Your task to perform on an android device: empty trash in the gmail app Image 0: 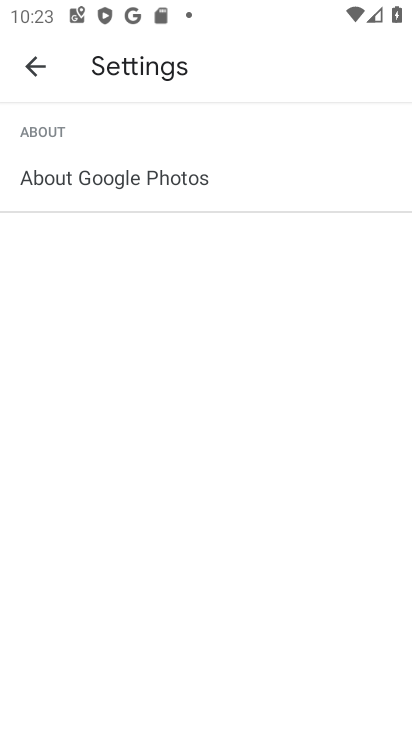
Step 0: press home button
Your task to perform on an android device: empty trash in the gmail app Image 1: 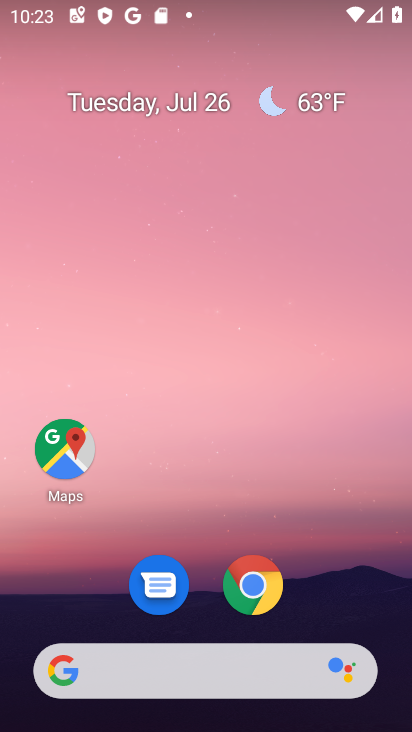
Step 1: drag from (386, 87) to (385, 37)
Your task to perform on an android device: empty trash in the gmail app Image 2: 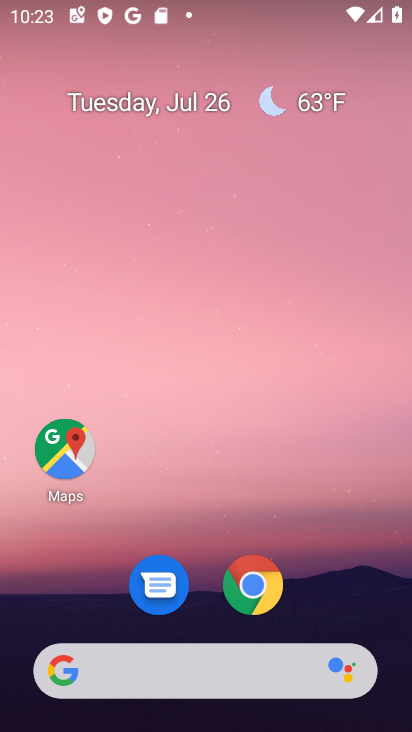
Step 2: drag from (192, 472) to (224, 0)
Your task to perform on an android device: empty trash in the gmail app Image 3: 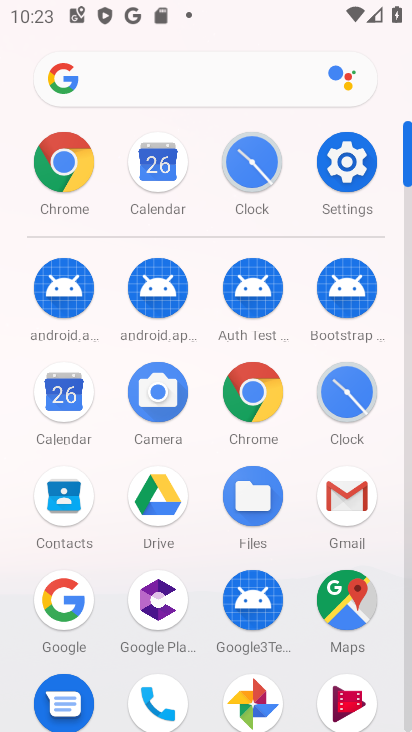
Step 3: click (352, 486)
Your task to perform on an android device: empty trash in the gmail app Image 4: 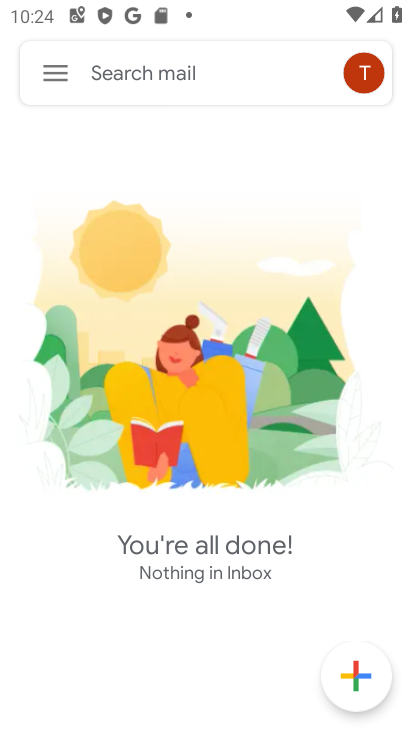
Step 4: click (53, 75)
Your task to perform on an android device: empty trash in the gmail app Image 5: 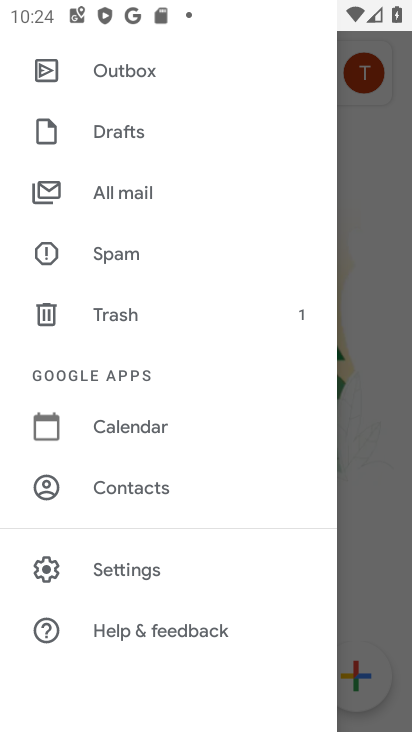
Step 5: click (121, 311)
Your task to perform on an android device: empty trash in the gmail app Image 6: 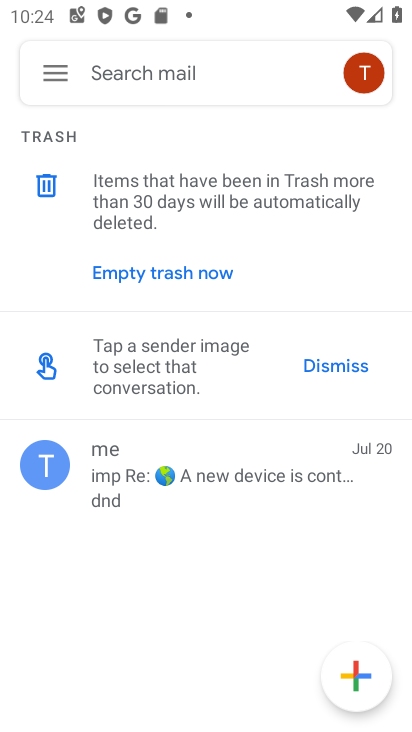
Step 6: click (151, 263)
Your task to perform on an android device: empty trash in the gmail app Image 7: 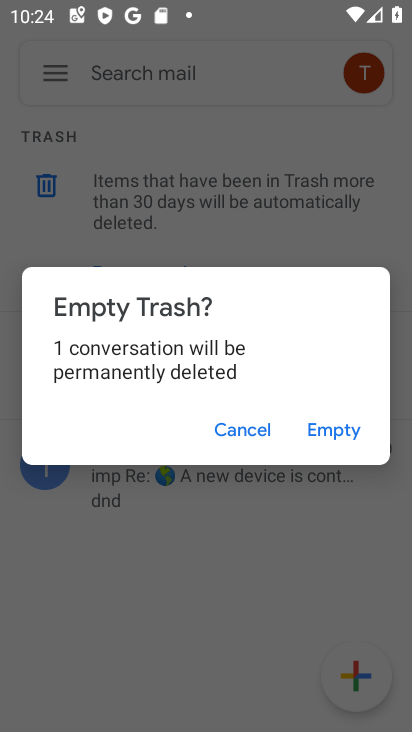
Step 7: click (320, 432)
Your task to perform on an android device: empty trash in the gmail app Image 8: 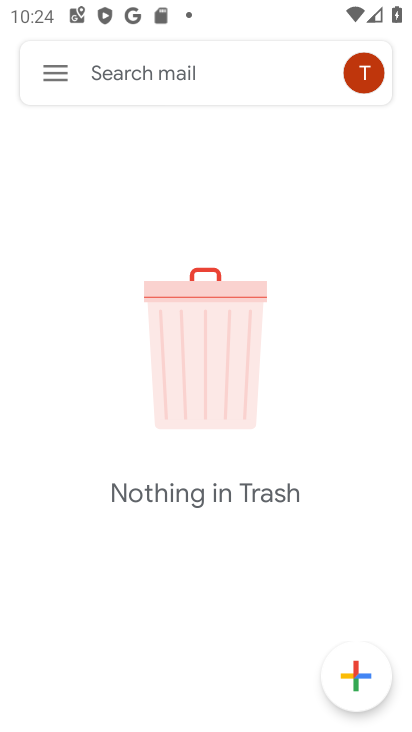
Step 8: task complete